Your task to perform on an android device: Open notification settings Image 0: 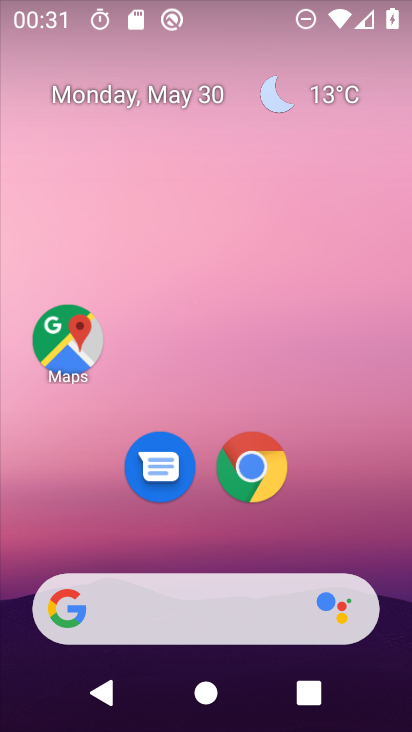
Step 0: drag from (190, 545) to (192, 179)
Your task to perform on an android device: Open notification settings Image 1: 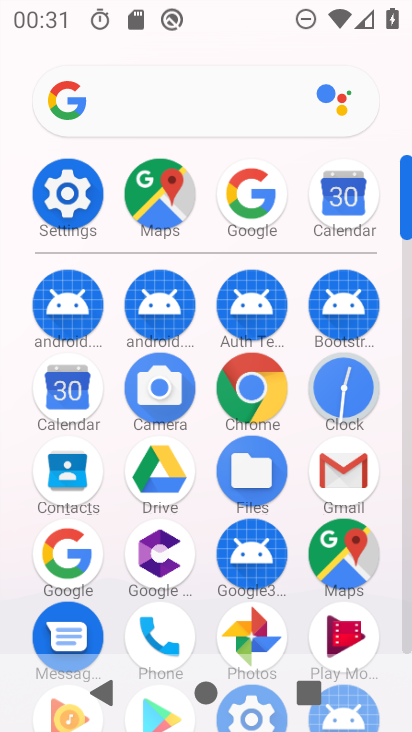
Step 1: click (70, 190)
Your task to perform on an android device: Open notification settings Image 2: 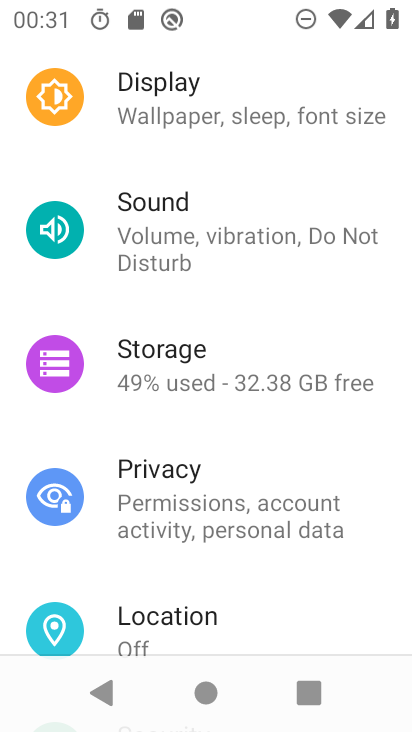
Step 2: drag from (146, 189) to (170, 491)
Your task to perform on an android device: Open notification settings Image 3: 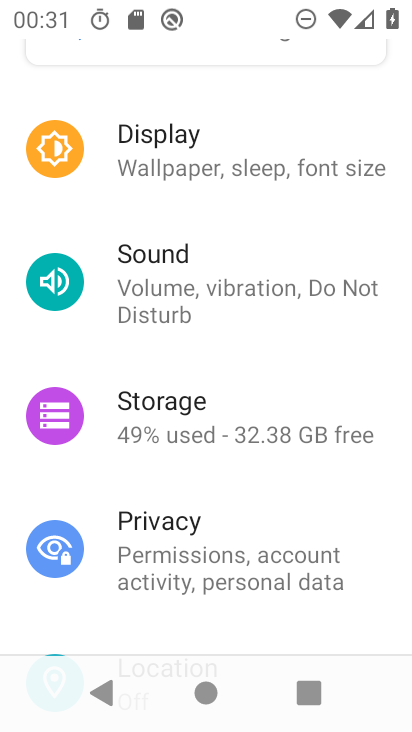
Step 3: drag from (226, 190) to (237, 514)
Your task to perform on an android device: Open notification settings Image 4: 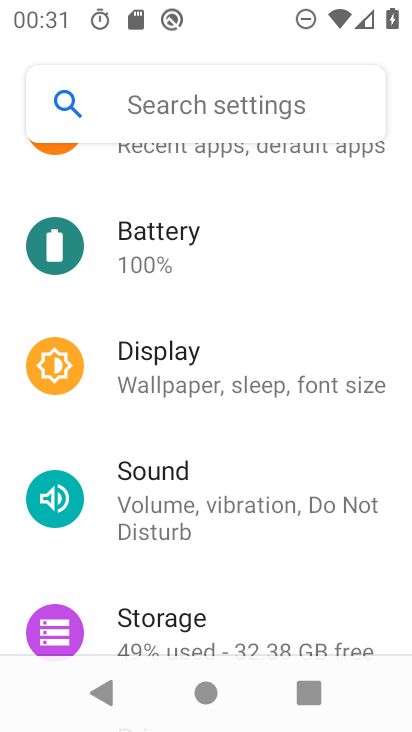
Step 4: drag from (212, 229) to (214, 500)
Your task to perform on an android device: Open notification settings Image 5: 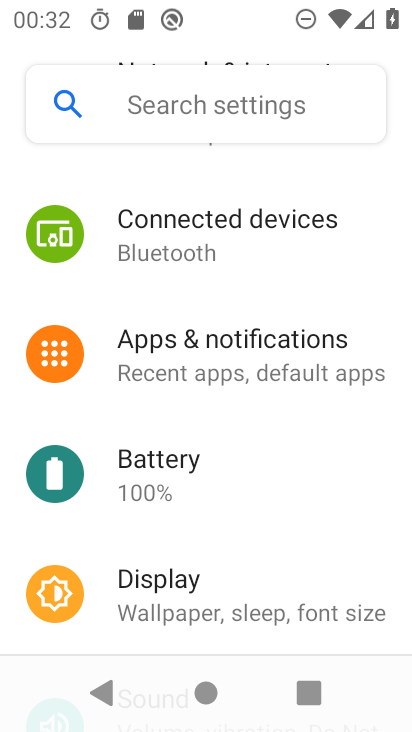
Step 5: click (225, 358)
Your task to perform on an android device: Open notification settings Image 6: 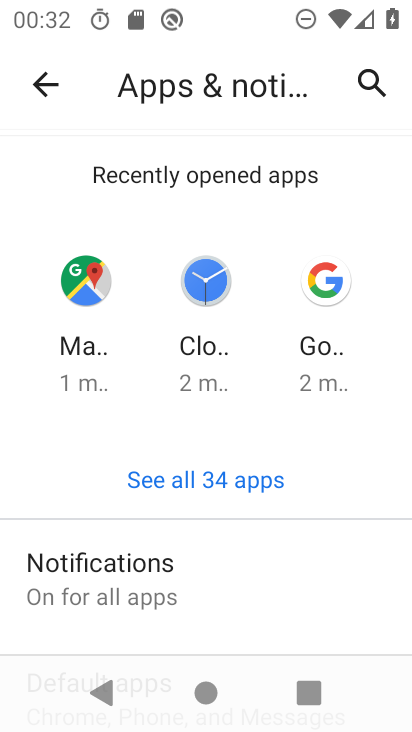
Step 6: click (213, 577)
Your task to perform on an android device: Open notification settings Image 7: 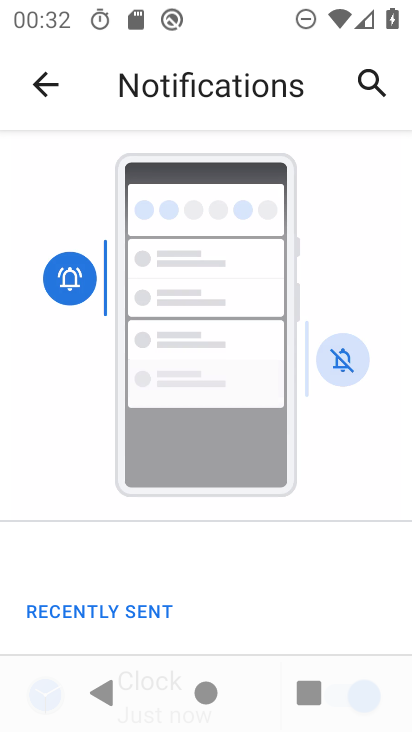
Step 7: task complete